Your task to perform on an android device: change text size in settings app Image 0: 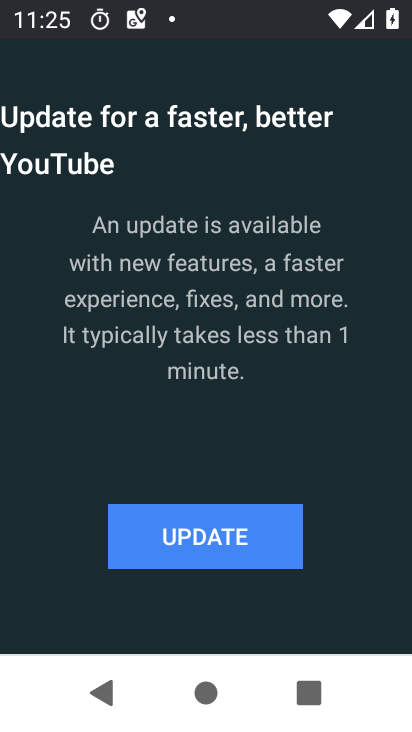
Step 0: drag from (199, 563) to (221, 247)
Your task to perform on an android device: change text size in settings app Image 1: 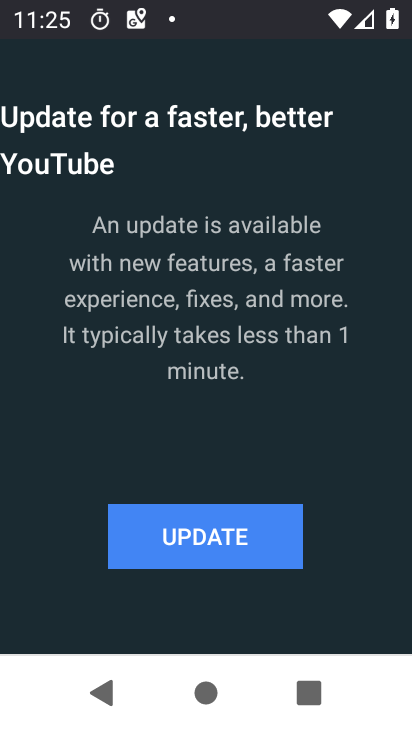
Step 1: press home button
Your task to perform on an android device: change text size in settings app Image 2: 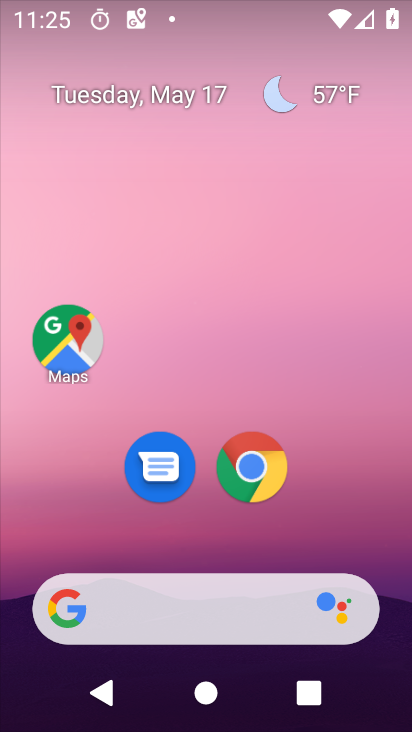
Step 2: drag from (183, 569) to (185, 246)
Your task to perform on an android device: change text size in settings app Image 3: 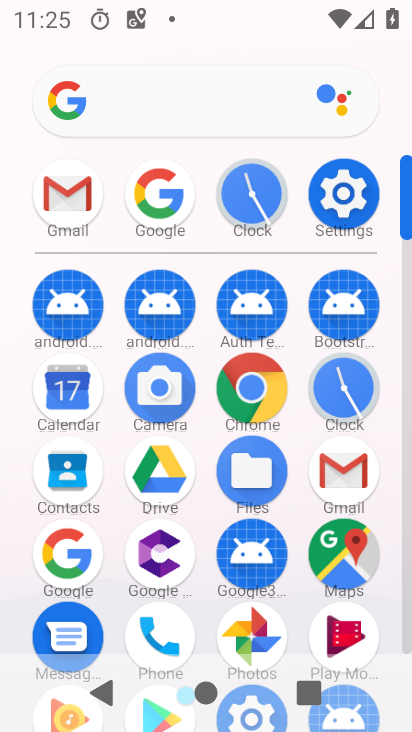
Step 3: click (338, 203)
Your task to perform on an android device: change text size in settings app Image 4: 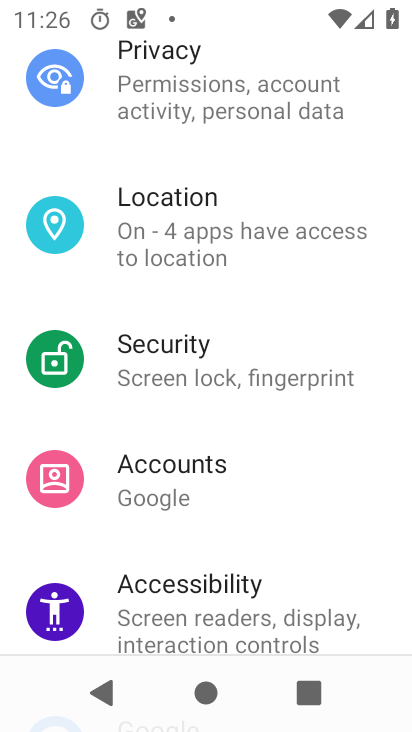
Step 4: click (191, 605)
Your task to perform on an android device: change text size in settings app Image 5: 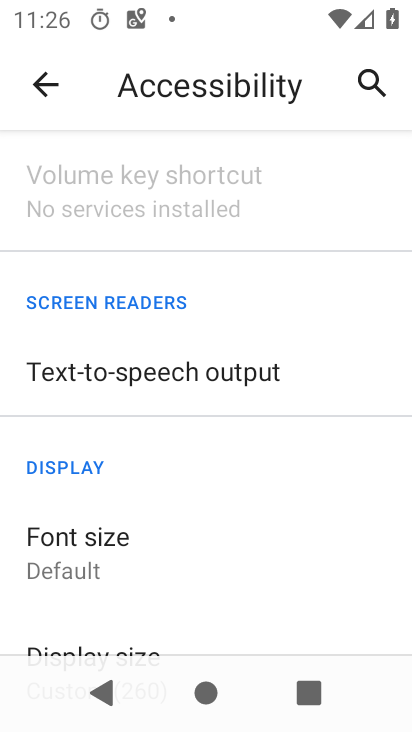
Step 5: click (78, 563)
Your task to perform on an android device: change text size in settings app Image 6: 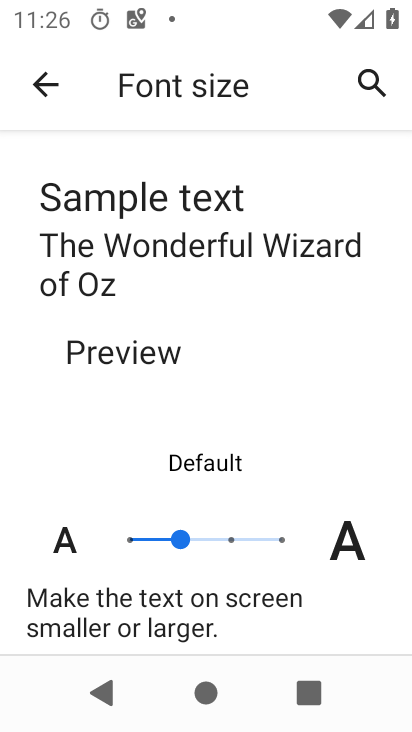
Step 6: click (230, 539)
Your task to perform on an android device: change text size in settings app Image 7: 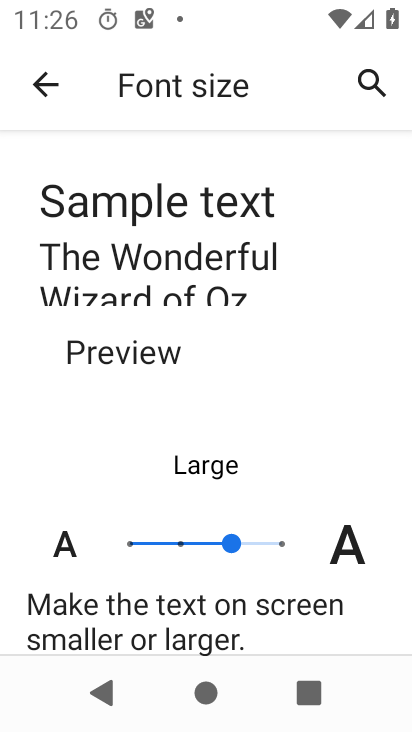
Step 7: task complete